Your task to perform on an android device: Do I have any events tomorrow? Image 0: 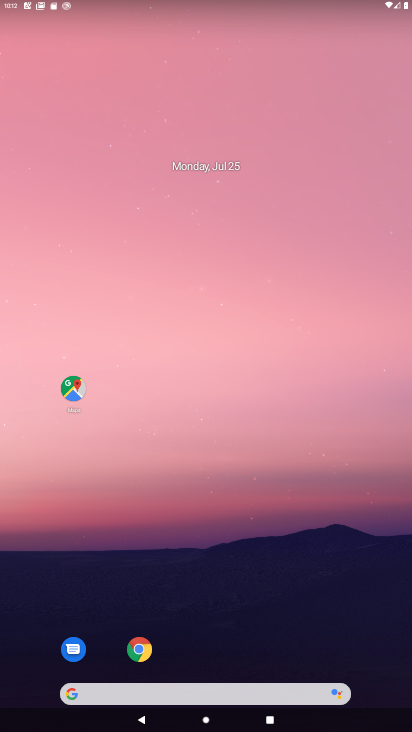
Step 0: drag from (384, 666) to (312, 217)
Your task to perform on an android device: Do I have any events tomorrow? Image 1: 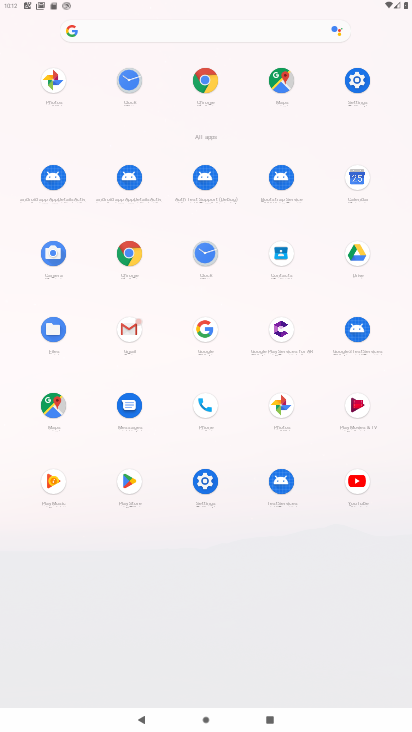
Step 1: click (354, 175)
Your task to perform on an android device: Do I have any events tomorrow? Image 2: 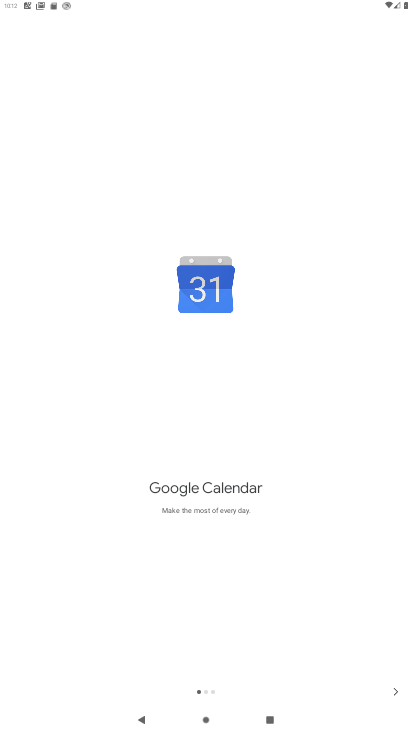
Step 2: click (393, 688)
Your task to perform on an android device: Do I have any events tomorrow? Image 3: 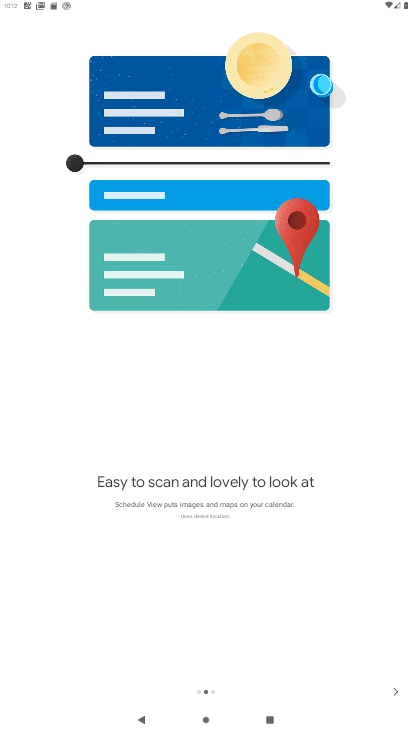
Step 3: click (393, 688)
Your task to perform on an android device: Do I have any events tomorrow? Image 4: 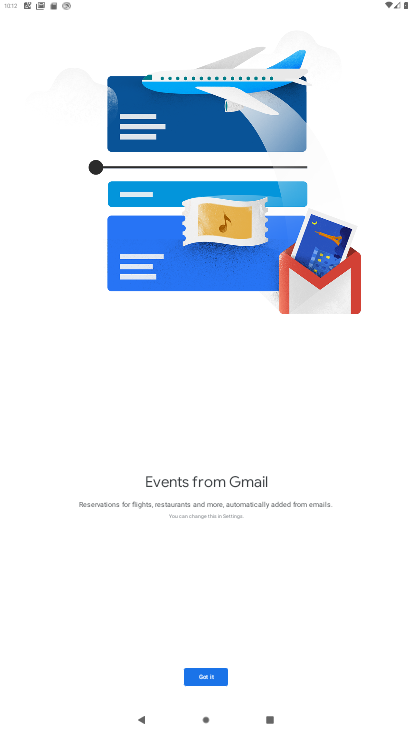
Step 4: click (206, 678)
Your task to perform on an android device: Do I have any events tomorrow? Image 5: 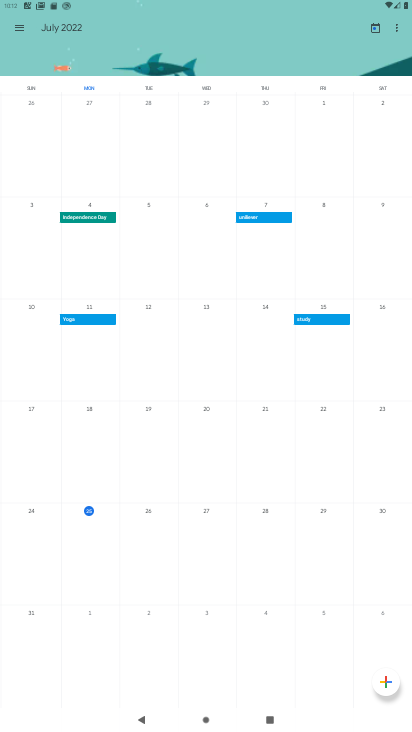
Step 5: click (16, 28)
Your task to perform on an android device: Do I have any events tomorrow? Image 6: 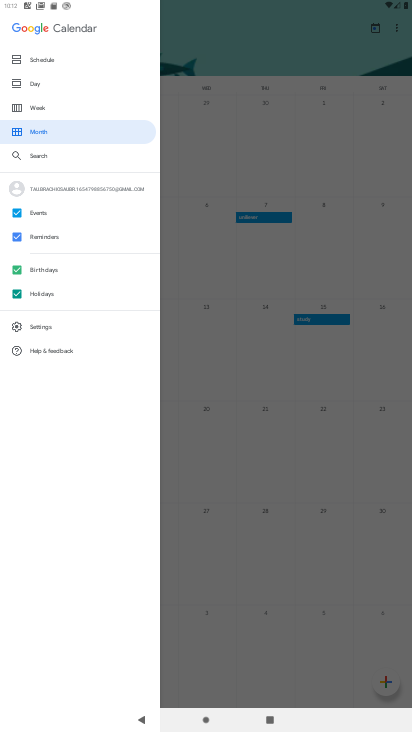
Step 6: click (34, 81)
Your task to perform on an android device: Do I have any events tomorrow? Image 7: 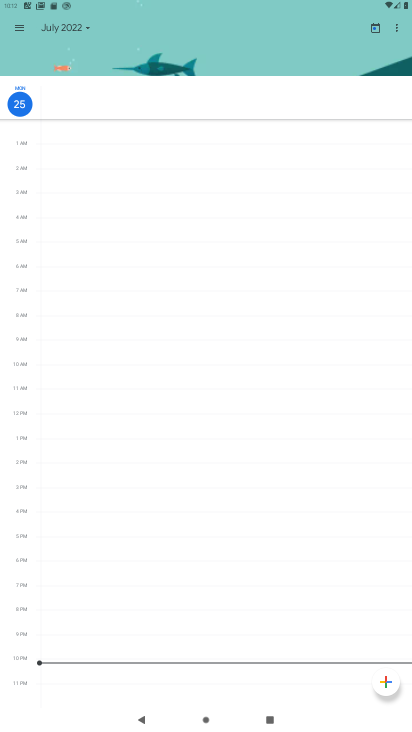
Step 7: click (84, 29)
Your task to perform on an android device: Do I have any events tomorrow? Image 8: 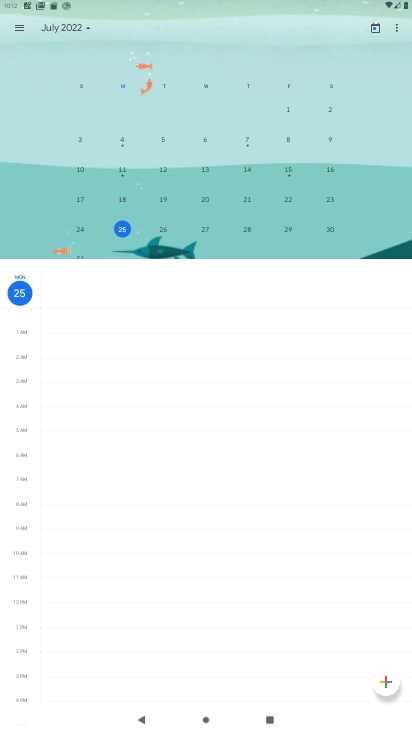
Step 8: click (161, 228)
Your task to perform on an android device: Do I have any events tomorrow? Image 9: 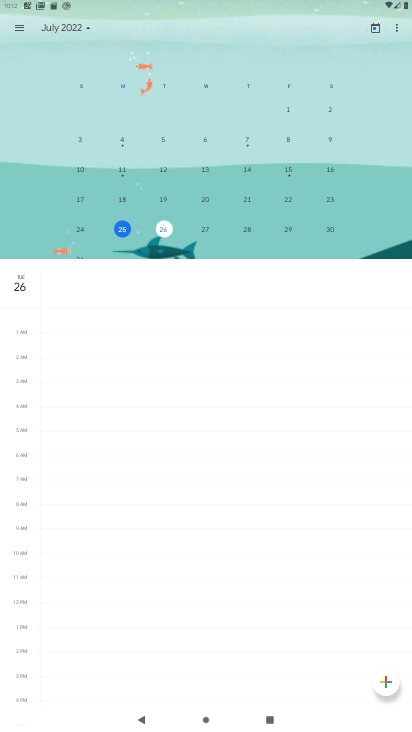
Step 9: task complete